Your task to perform on an android device: Search for Mexican restaurants on Maps Image 0: 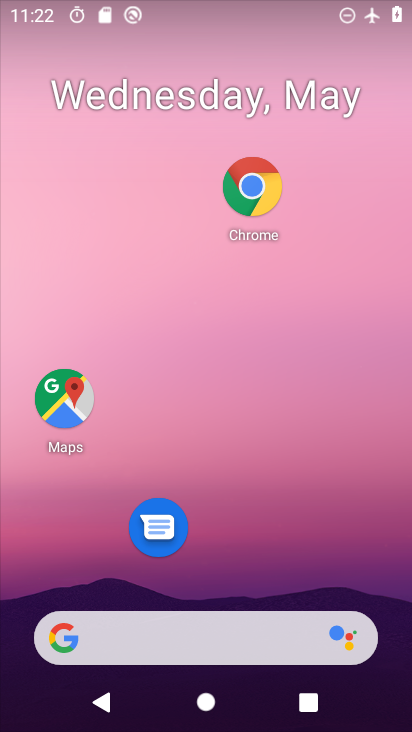
Step 0: drag from (288, 538) to (276, 143)
Your task to perform on an android device: Search for Mexican restaurants on Maps Image 1: 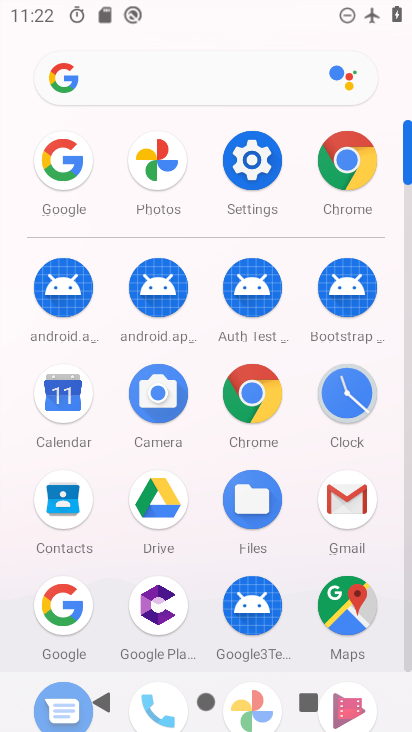
Step 1: click (356, 598)
Your task to perform on an android device: Search for Mexican restaurants on Maps Image 2: 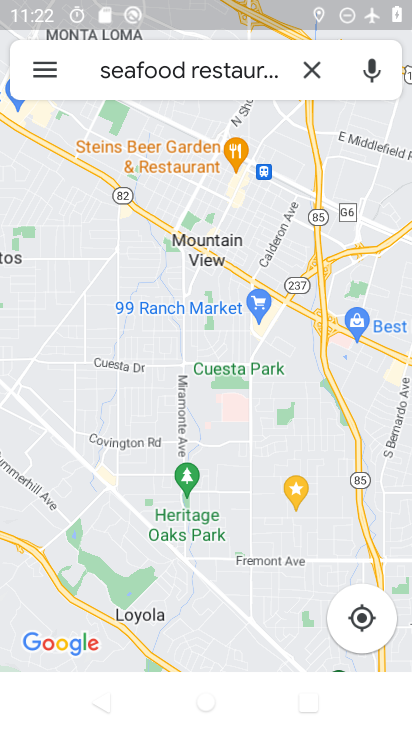
Step 2: click (306, 72)
Your task to perform on an android device: Search for Mexican restaurants on Maps Image 3: 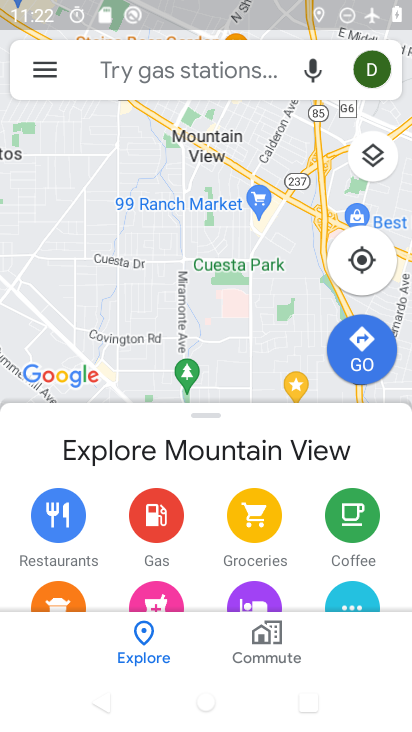
Step 3: click (188, 89)
Your task to perform on an android device: Search for Mexican restaurants on Maps Image 4: 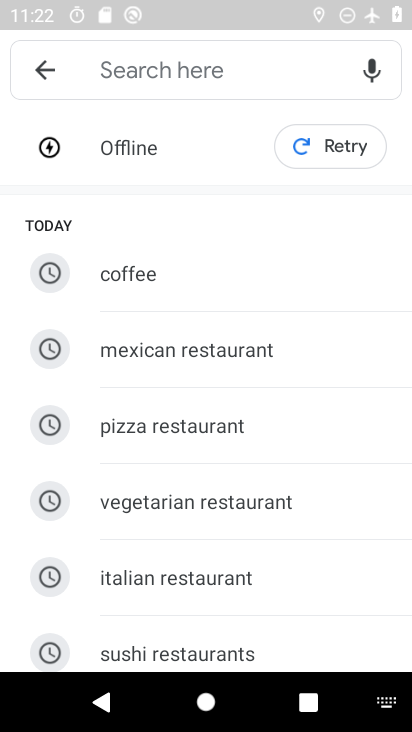
Step 4: click (181, 343)
Your task to perform on an android device: Search for Mexican restaurants on Maps Image 5: 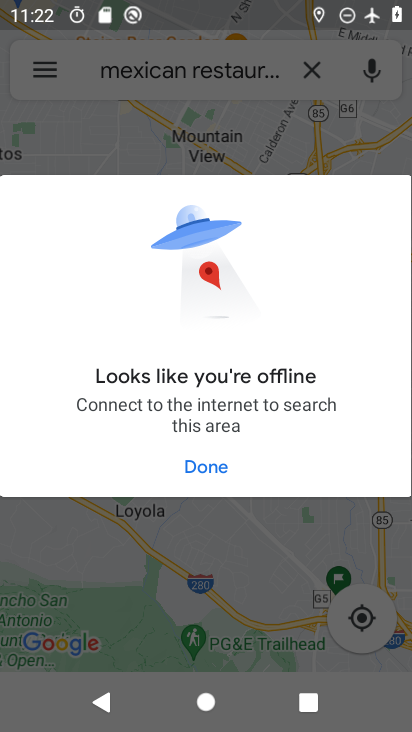
Step 5: task complete